Your task to perform on an android device: Clear all items from cart on ebay. Search for jbl flip 4 on ebay, select the first entry, and add it to the cart. Image 0: 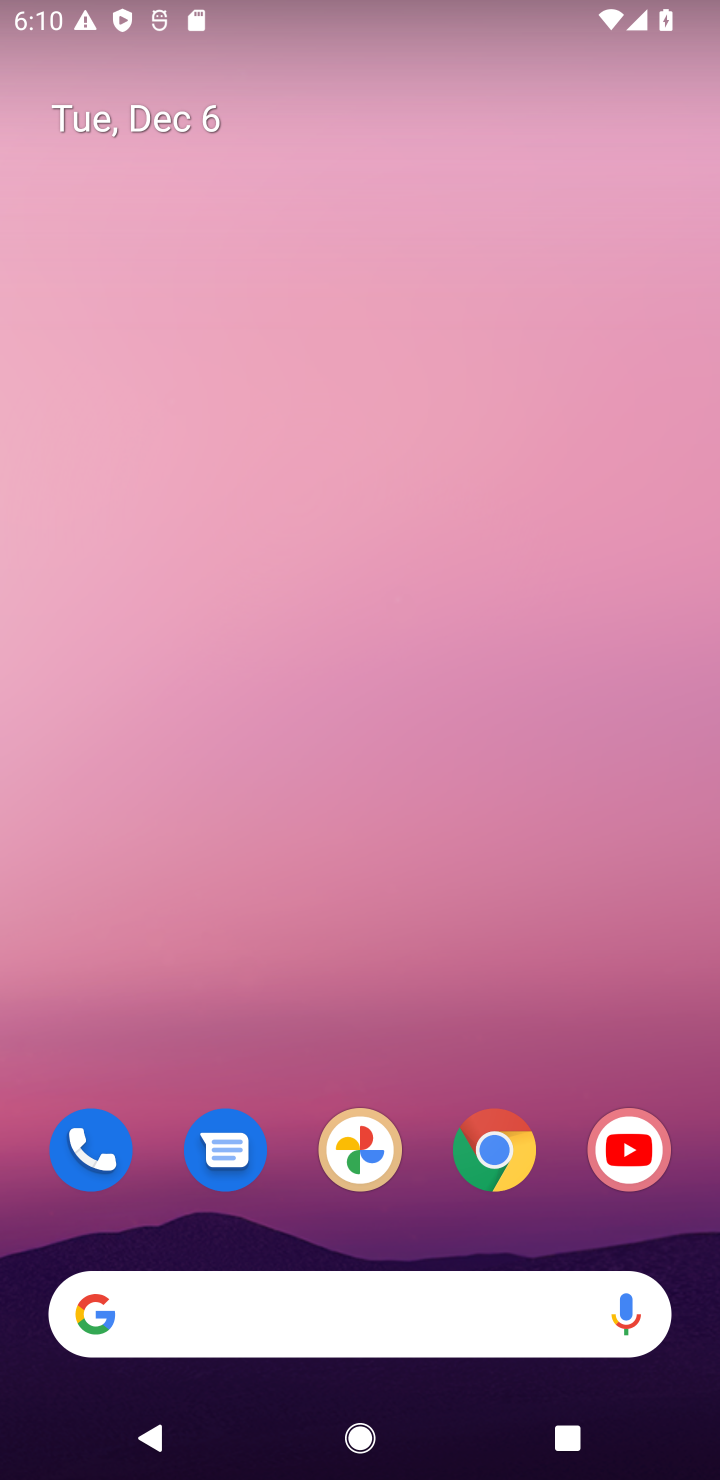
Step 0: click (492, 1160)
Your task to perform on an android device: Clear all items from cart on ebay. Search for jbl flip 4 on ebay, select the first entry, and add it to the cart. Image 1: 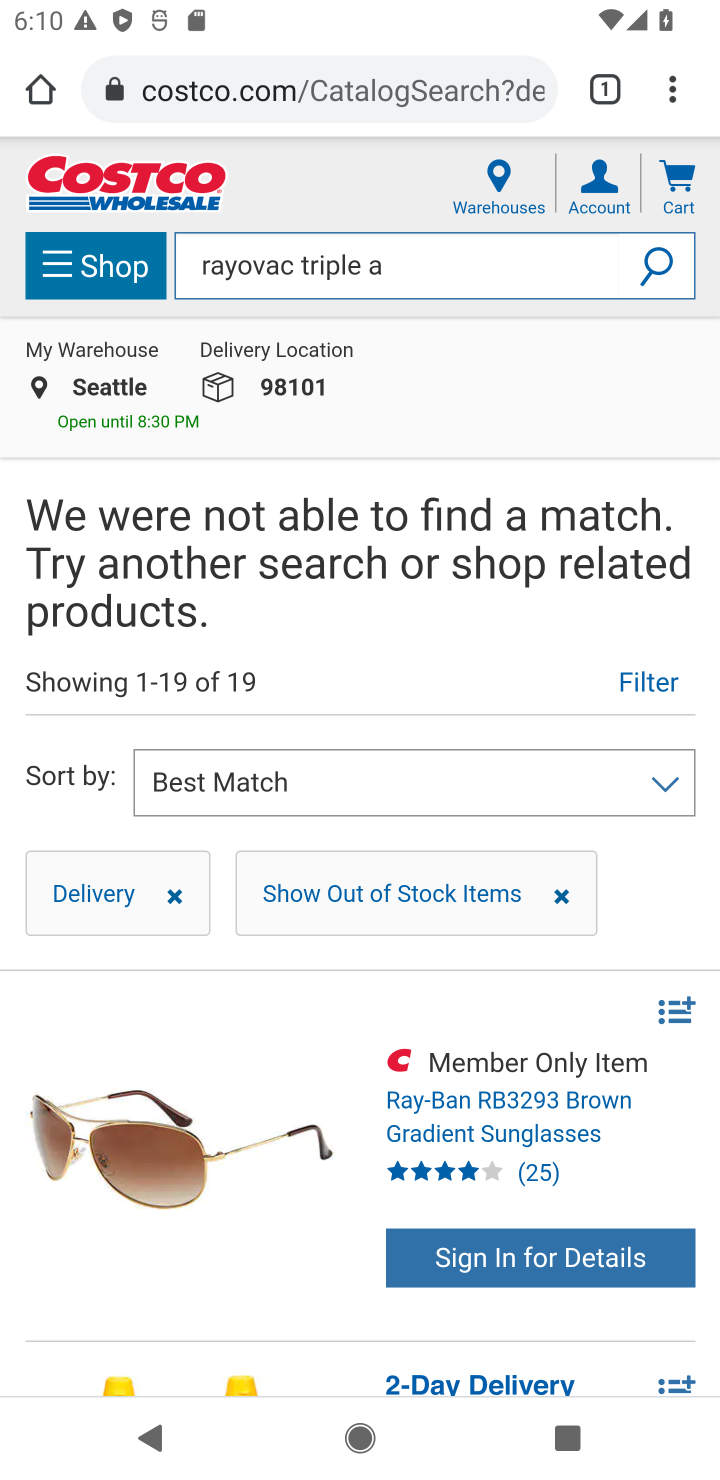
Step 1: click (360, 82)
Your task to perform on an android device: Clear all items from cart on ebay. Search for jbl flip 4 on ebay, select the first entry, and add it to the cart. Image 2: 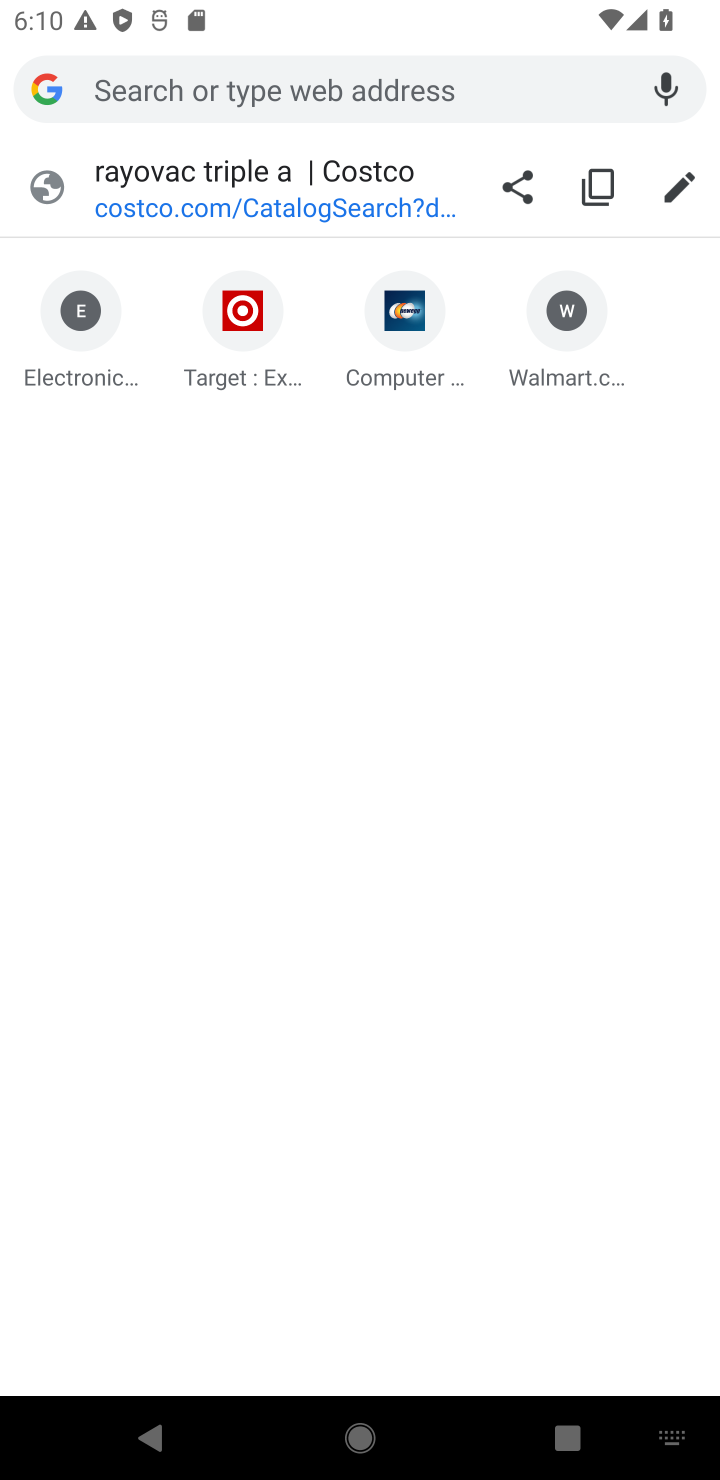
Step 2: type "ebay.com"
Your task to perform on an android device: Clear all items from cart on ebay. Search for jbl flip 4 on ebay, select the first entry, and add it to the cart. Image 3: 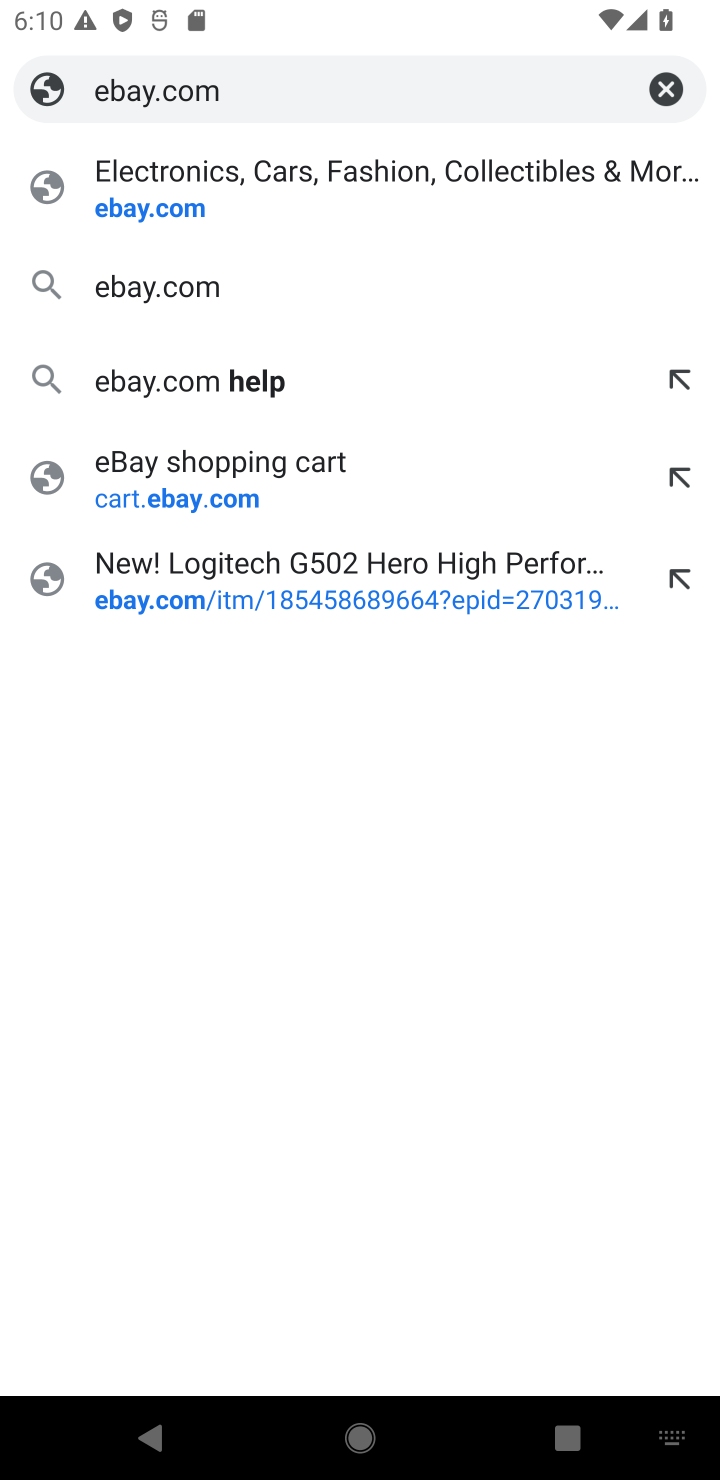
Step 3: click (137, 223)
Your task to perform on an android device: Clear all items from cart on ebay. Search for jbl flip 4 on ebay, select the first entry, and add it to the cart. Image 4: 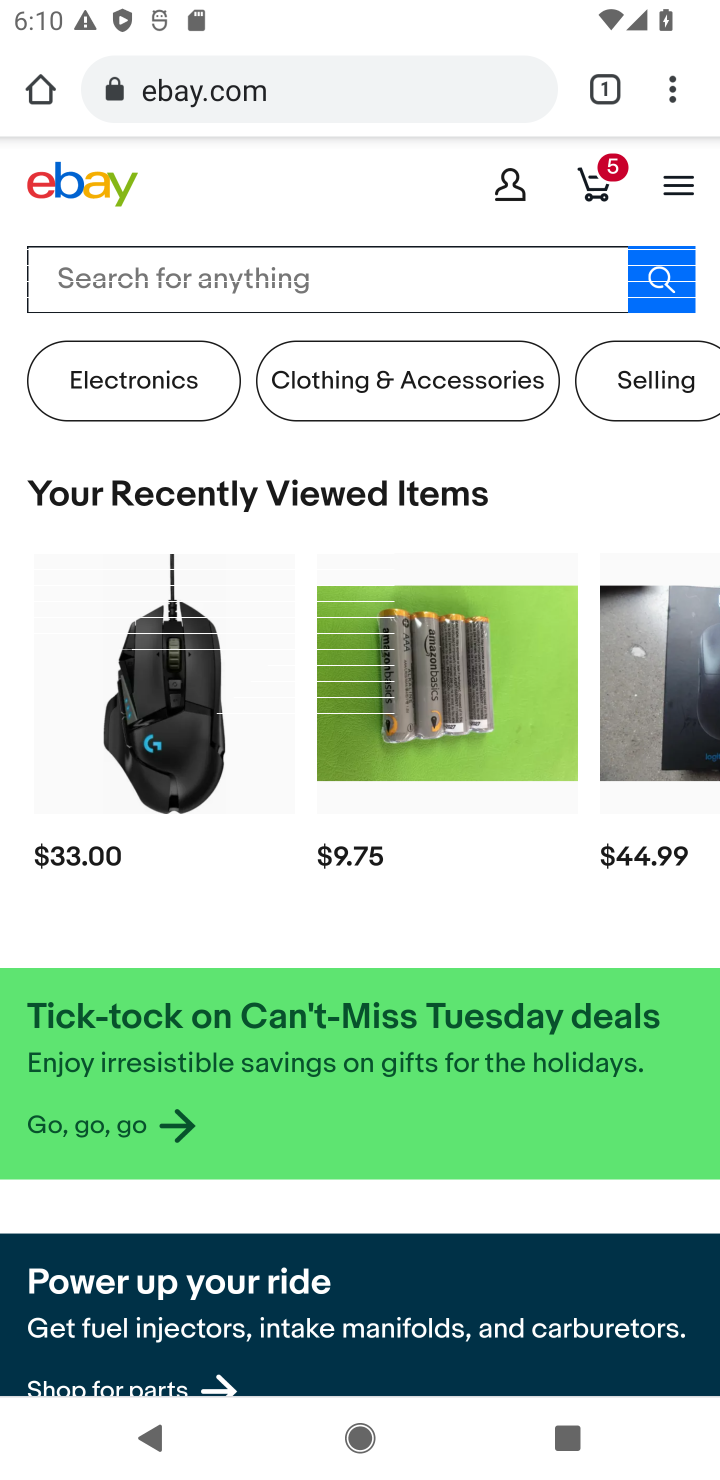
Step 4: click (611, 178)
Your task to perform on an android device: Clear all items from cart on ebay. Search for jbl flip 4 on ebay, select the first entry, and add it to the cart. Image 5: 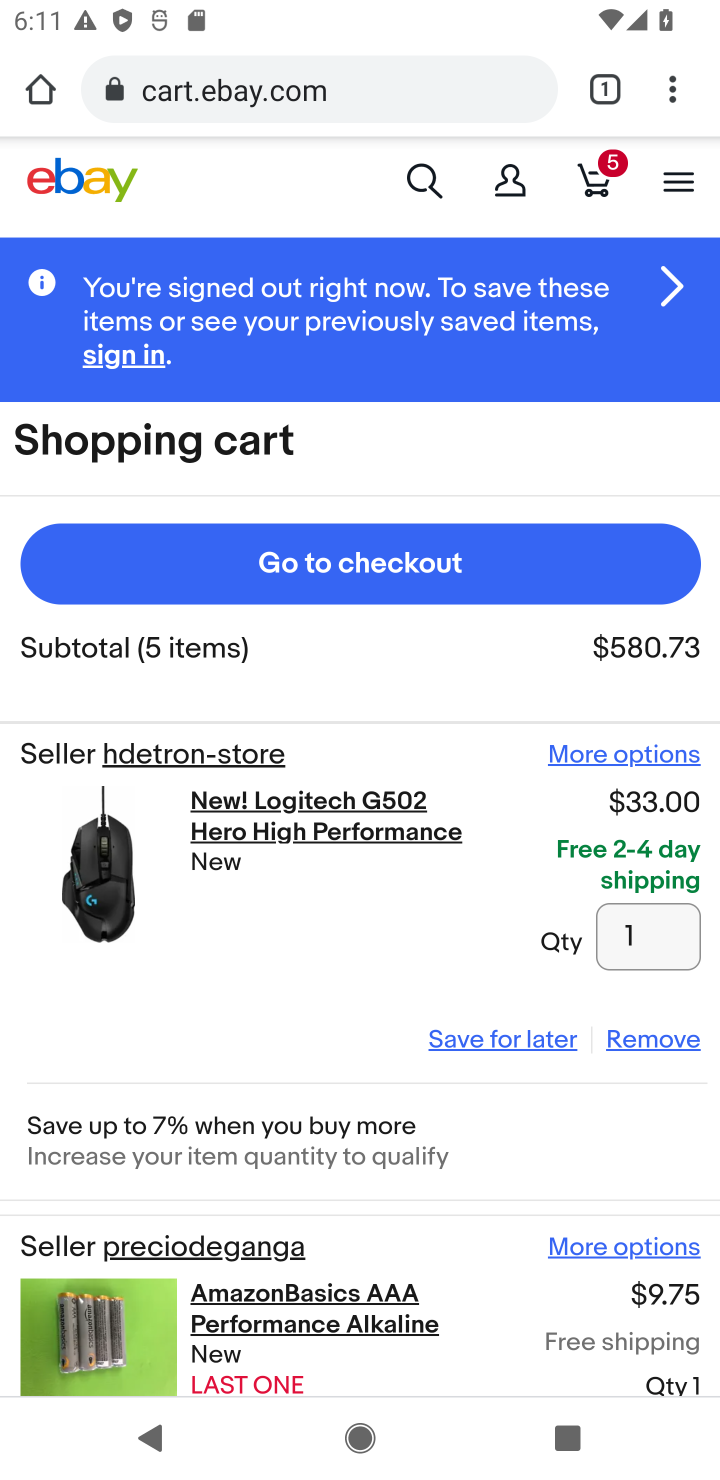
Step 5: click (651, 1038)
Your task to perform on an android device: Clear all items from cart on ebay. Search for jbl flip 4 on ebay, select the first entry, and add it to the cart. Image 6: 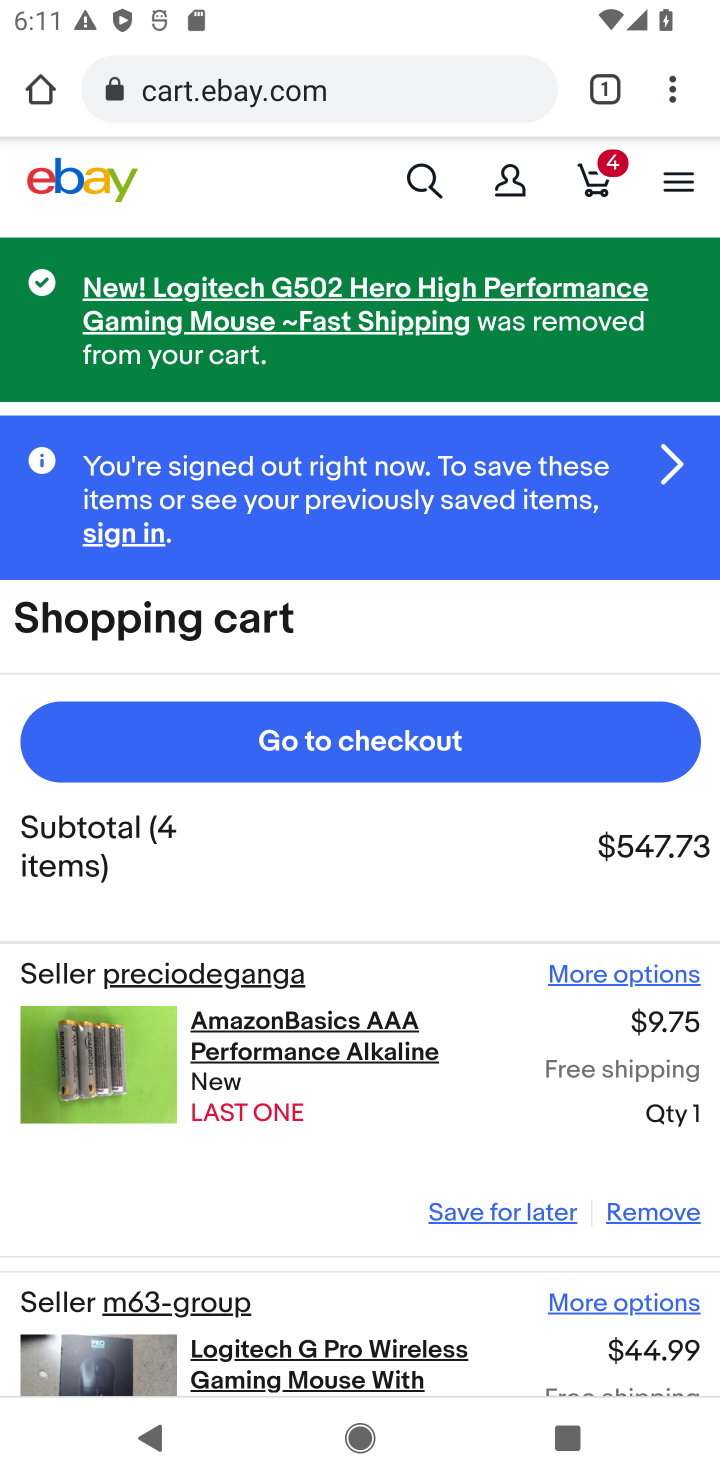
Step 6: click (655, 1208)
Your task to perform on an android device: Clear all items from cart on ebay. Search for jbl flip 4 on ebay, select the first entry, and add it to the cart. Image 7: 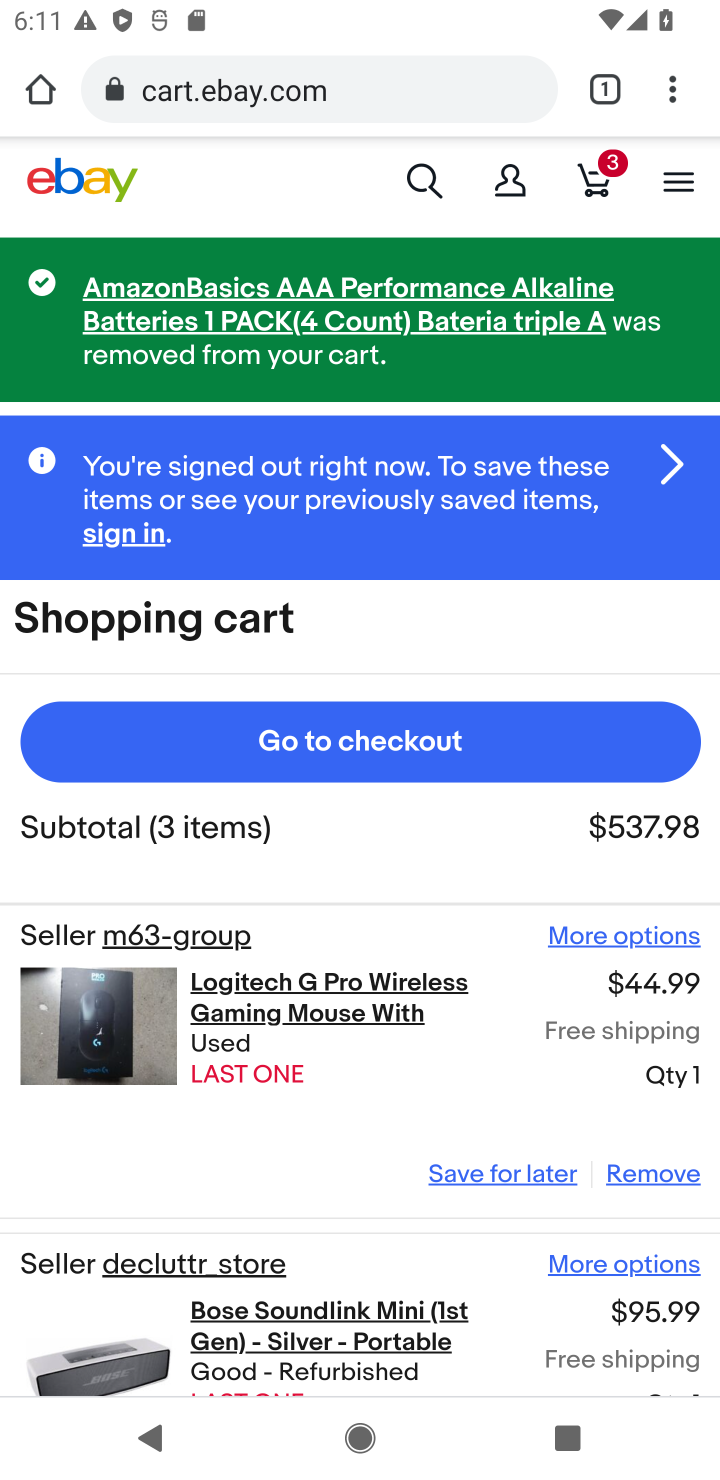
Step 7: click (655, 1175)
Your task to perform on an android device: Clear all items from cart on ebay. Search for jbl flip 4 on ebay, select the first entry, and add it to the cart. Image 8: 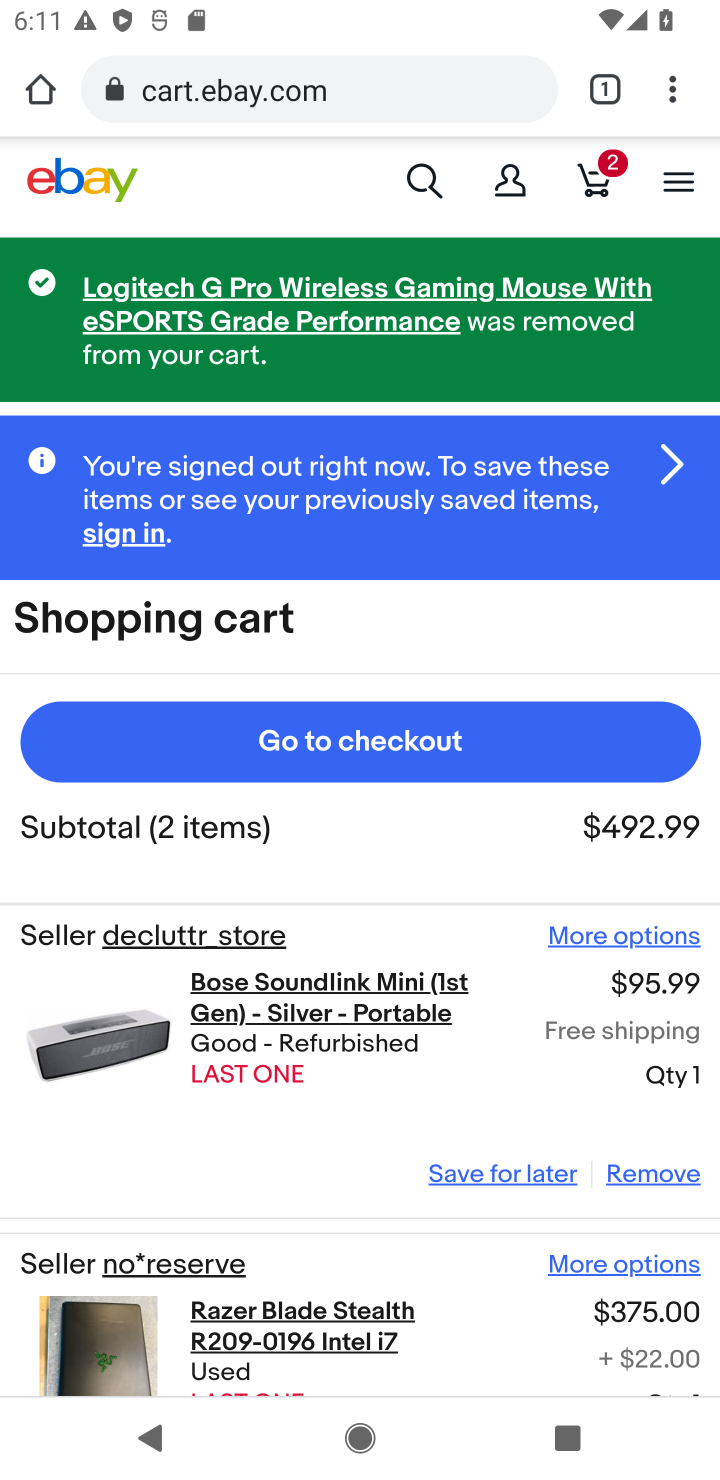
Step 8: click (655, 1175)
Your task to perform on an android device: Clear all items from cart on ebay. Search for jbl flip 4 on ebay, select the first entry, and add it to the cart. Image 9: 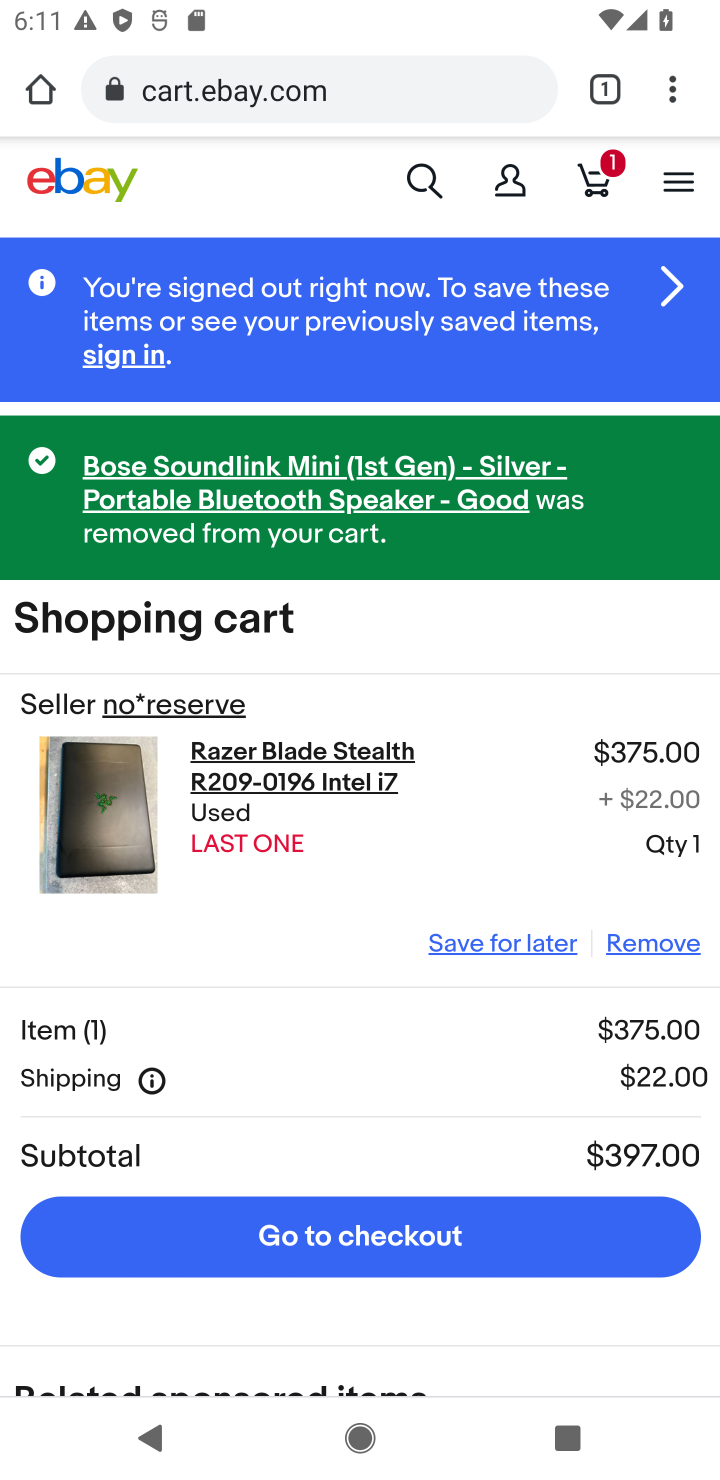
Step 9: click (661, 946)
Your task to perform on an android device: Clear all items from cart on ebay. Search for jbl flip 4 on ebay, select the first entry, and add it to the cart. Image 10: 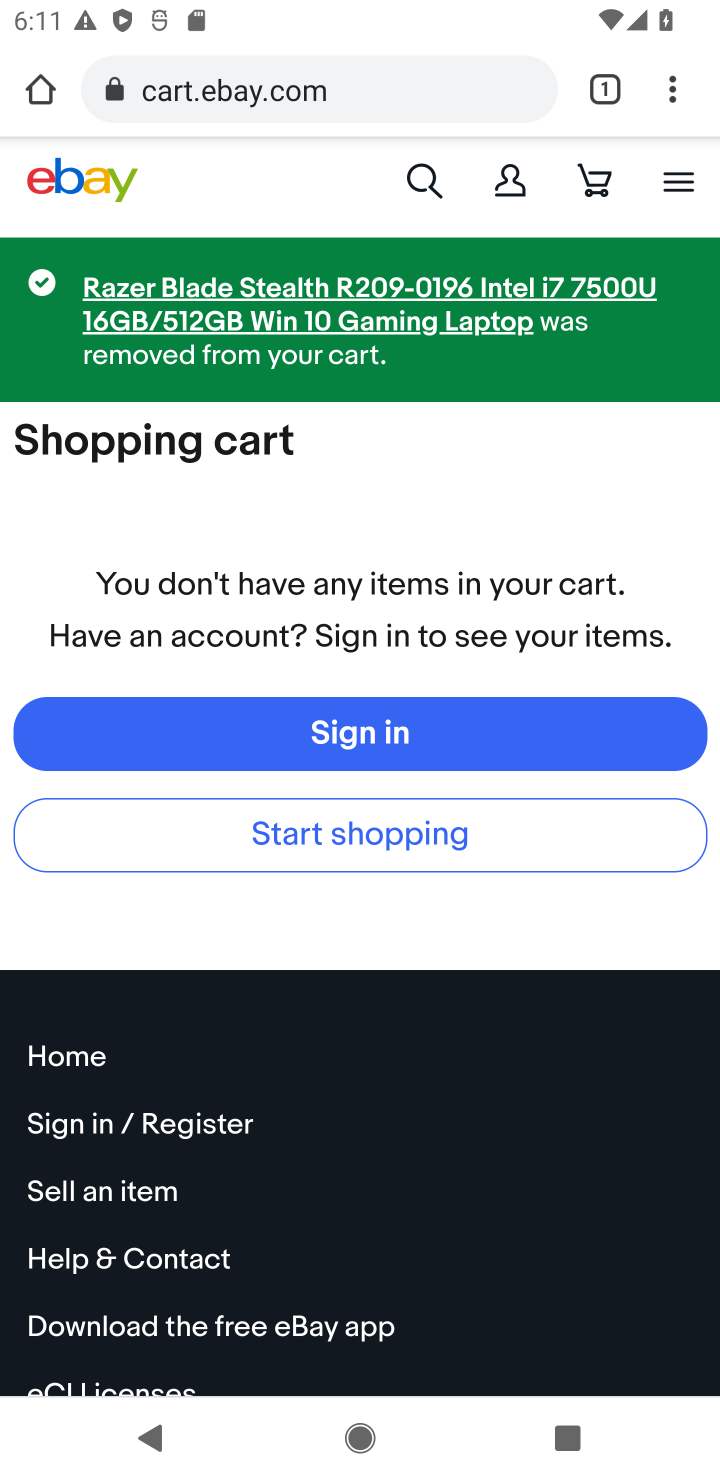
Step 10: click (418, 186)
Your task to perform on an android device: Clear all items from cart on ebay. Search for jbl flip 4 on ebay, select the first entry, and add it to the cart. Image 11: 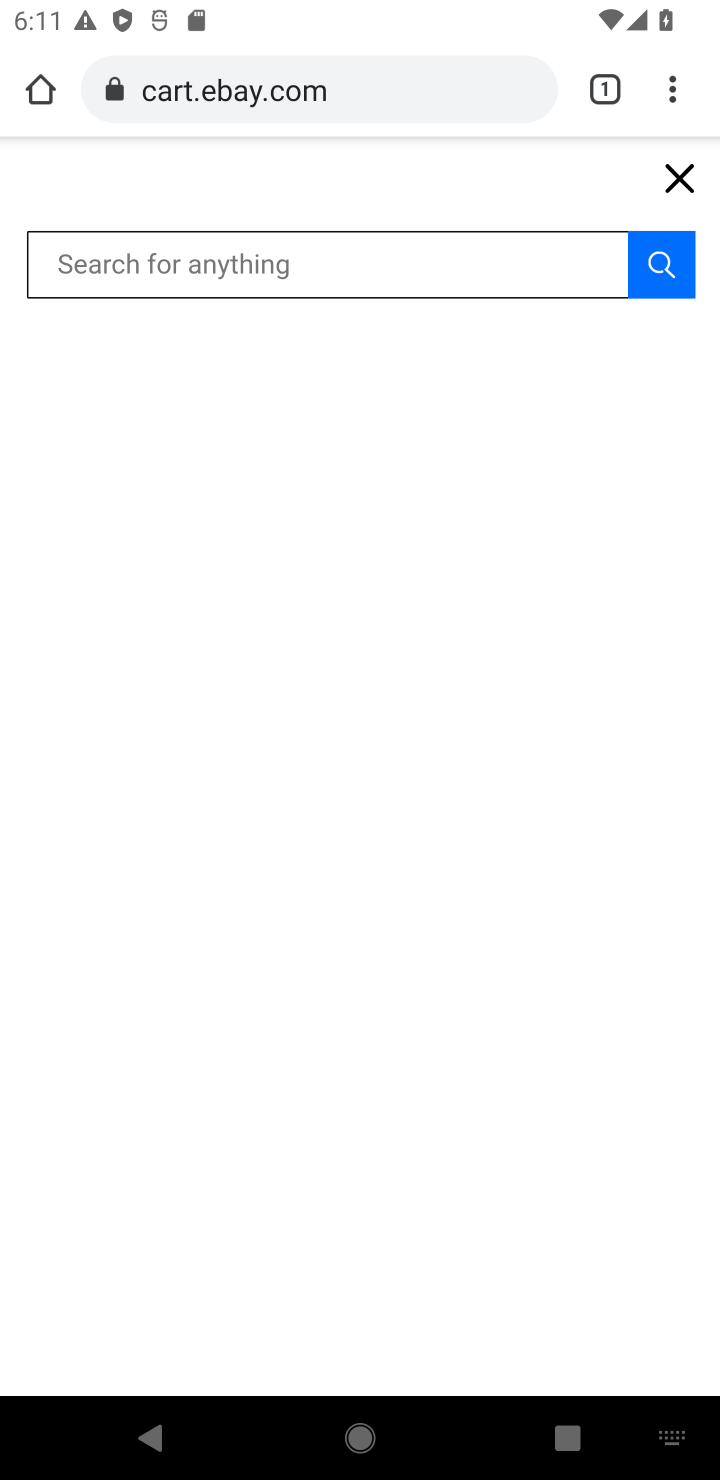
Step 11: type "jbl flip 4 "
Your task to perform on an android device: Clear all items from cart on ebay. Search for jbl flip 4 on ebay, select the first entry, and add it to the cart. Image 12: 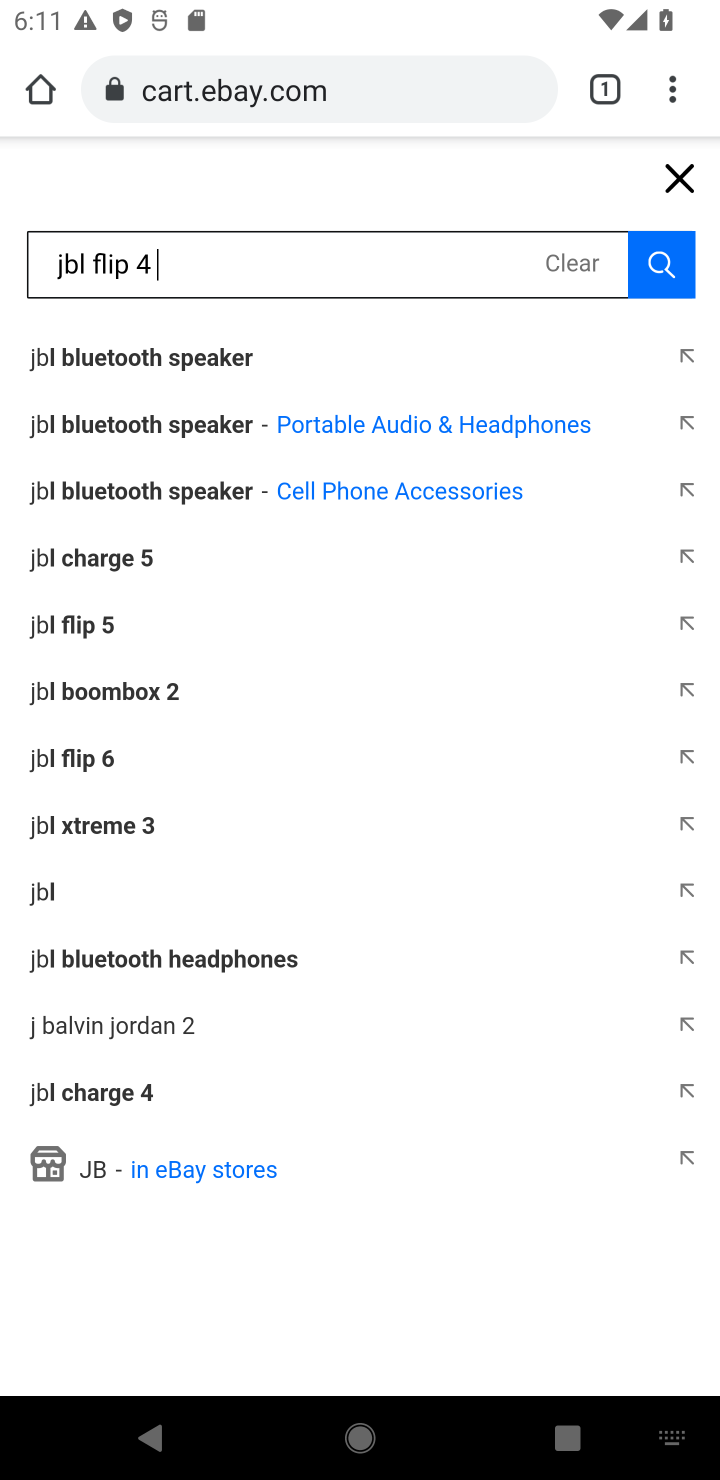
Step 12: click (643, 261)
Your task to perform on an android device: Clear all items from cart on ebay. Search for jbl flip 4 on ebay, select the first entry, and add it to the cart. Image 13: 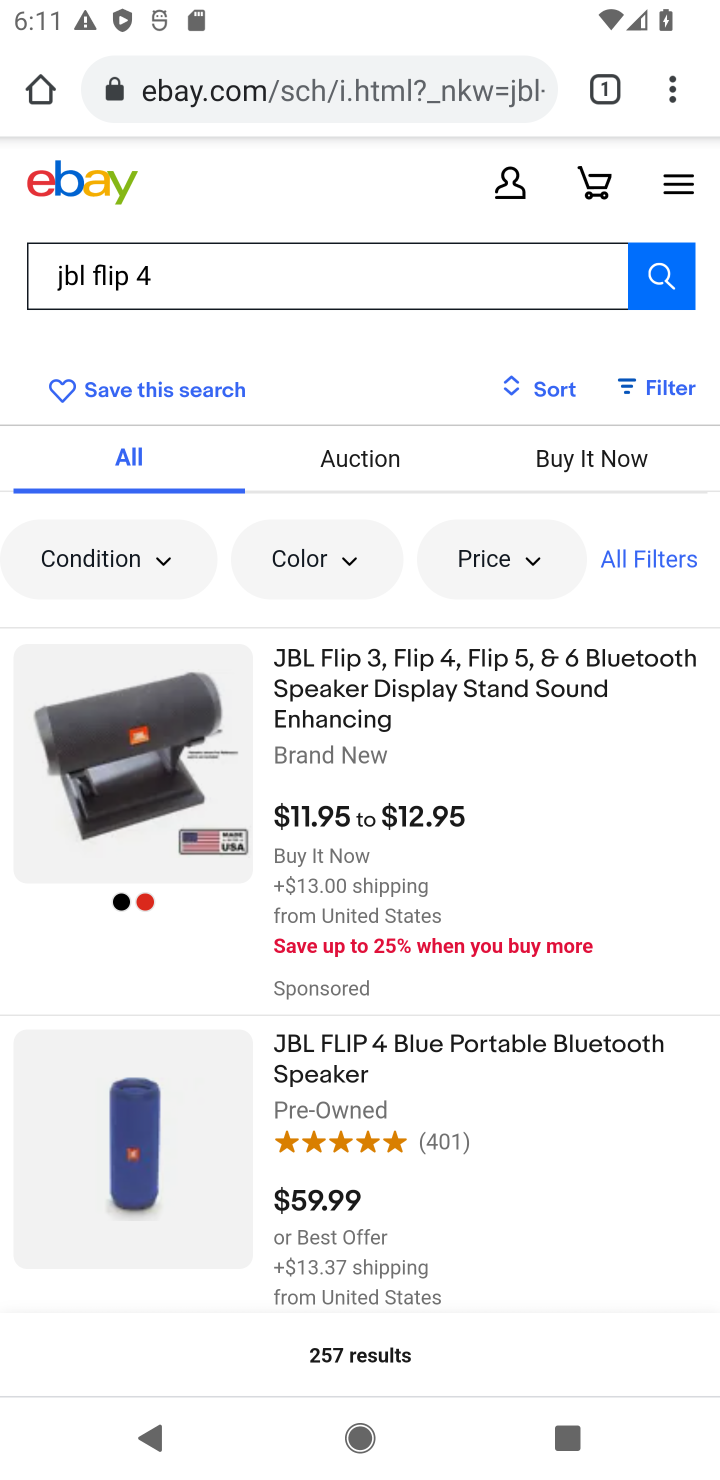
Step 13: click (352, 698)
Your task to perform on an android device: Clear all items from cart on ebay. Search for jbl flip 4 on ebay, select the first entry, and add it to the cart. Image 14: 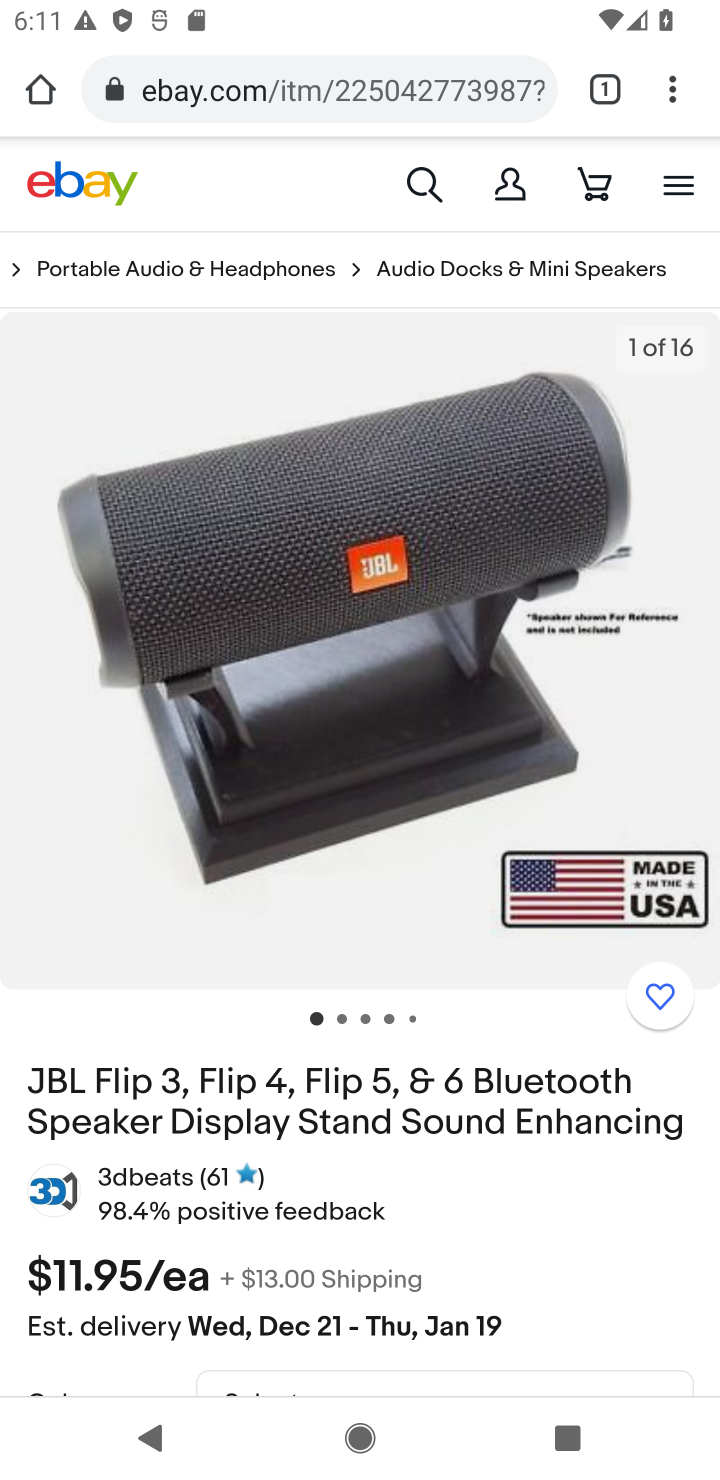
Step 14: drag from (336, 1217) to (264, 634)
Your task to perform on an android device: Clear all items from cart on ebay. Search for jbl flip 4 on ebay, select the first entry, and add it to the cart. Image 15: 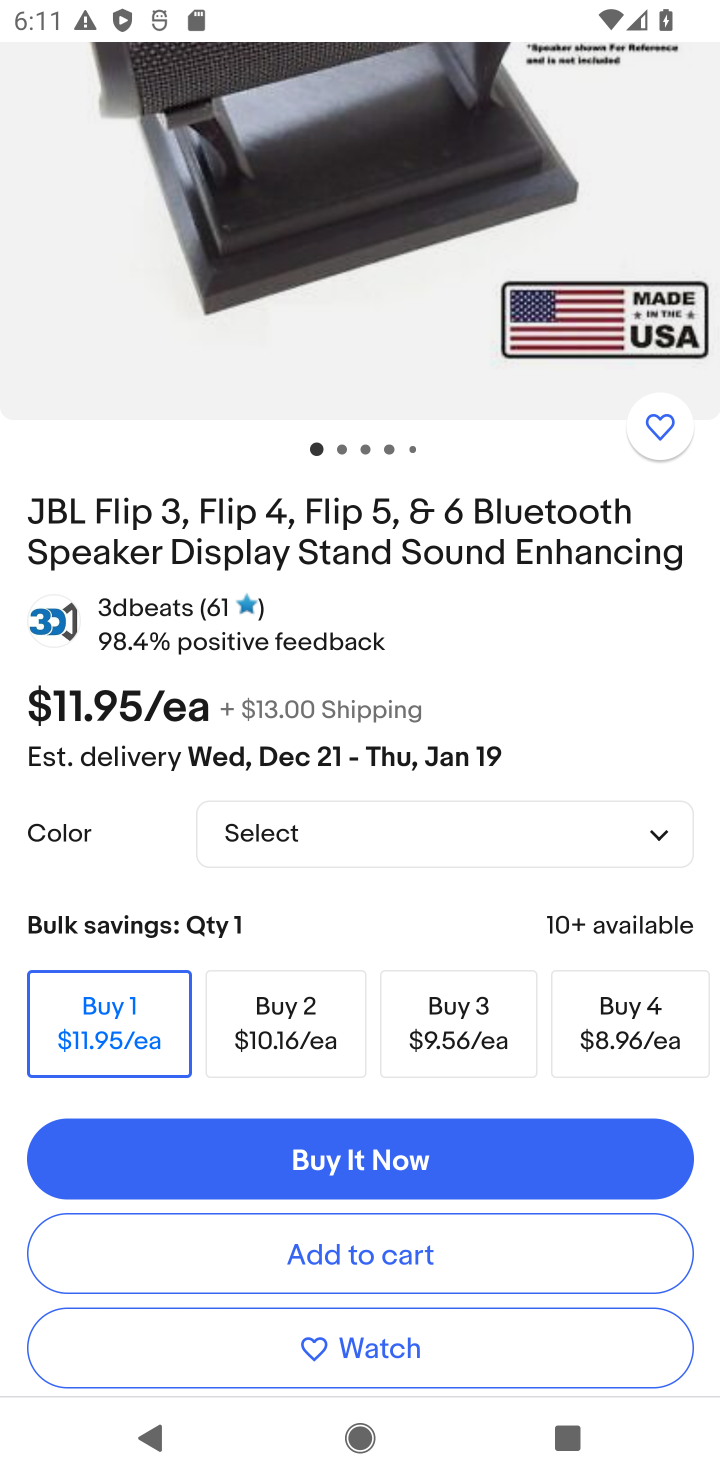
Step 15: click (322, 1249)
Your task to perform on an android device: Clear all items from cart on ebay. Search for jbl flip 4 on ebay, select the first entry, and add it to the cart. Image 16: 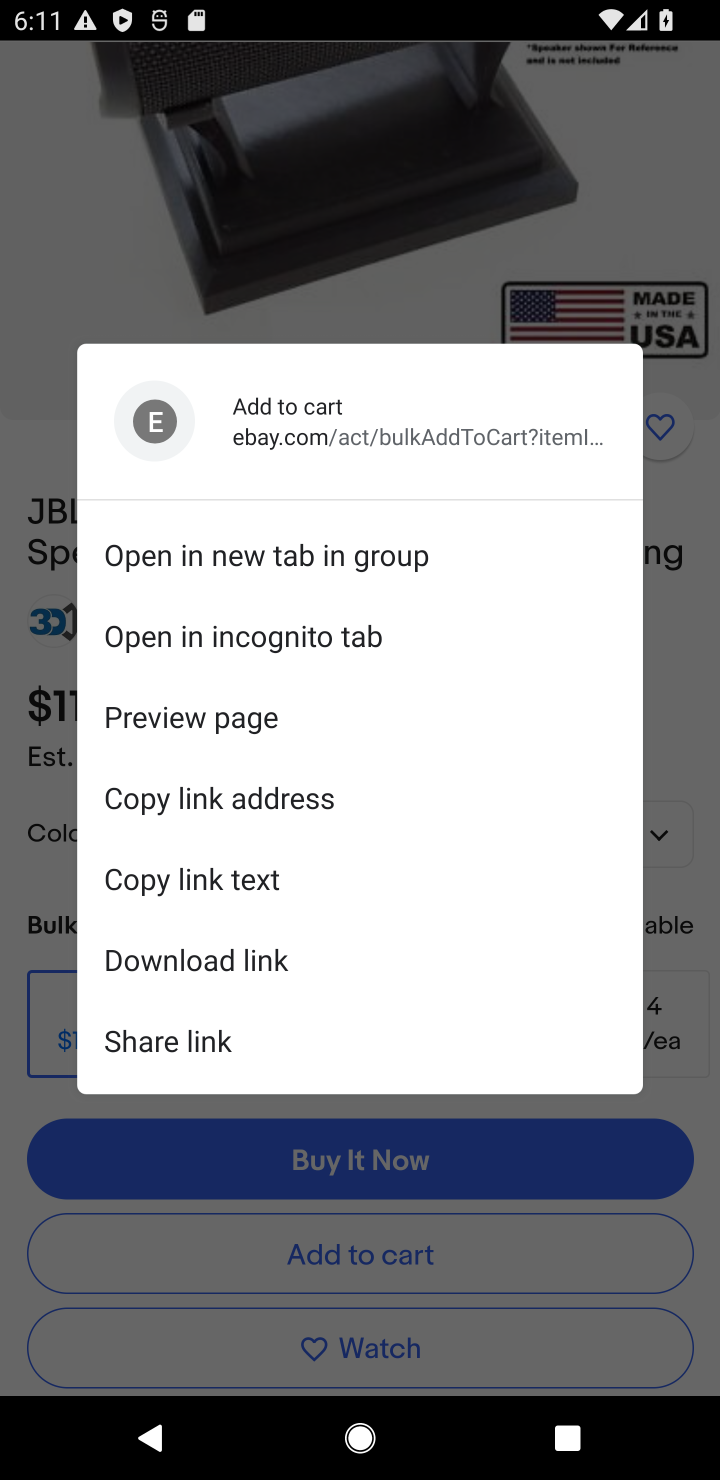
Step 16: click (322, 1249)
Your task to perform on an android device: Clear all items from cart on ebay. Search for jbl flip 4 on ebay, select the first entry, and add it to the cart. Image 17: 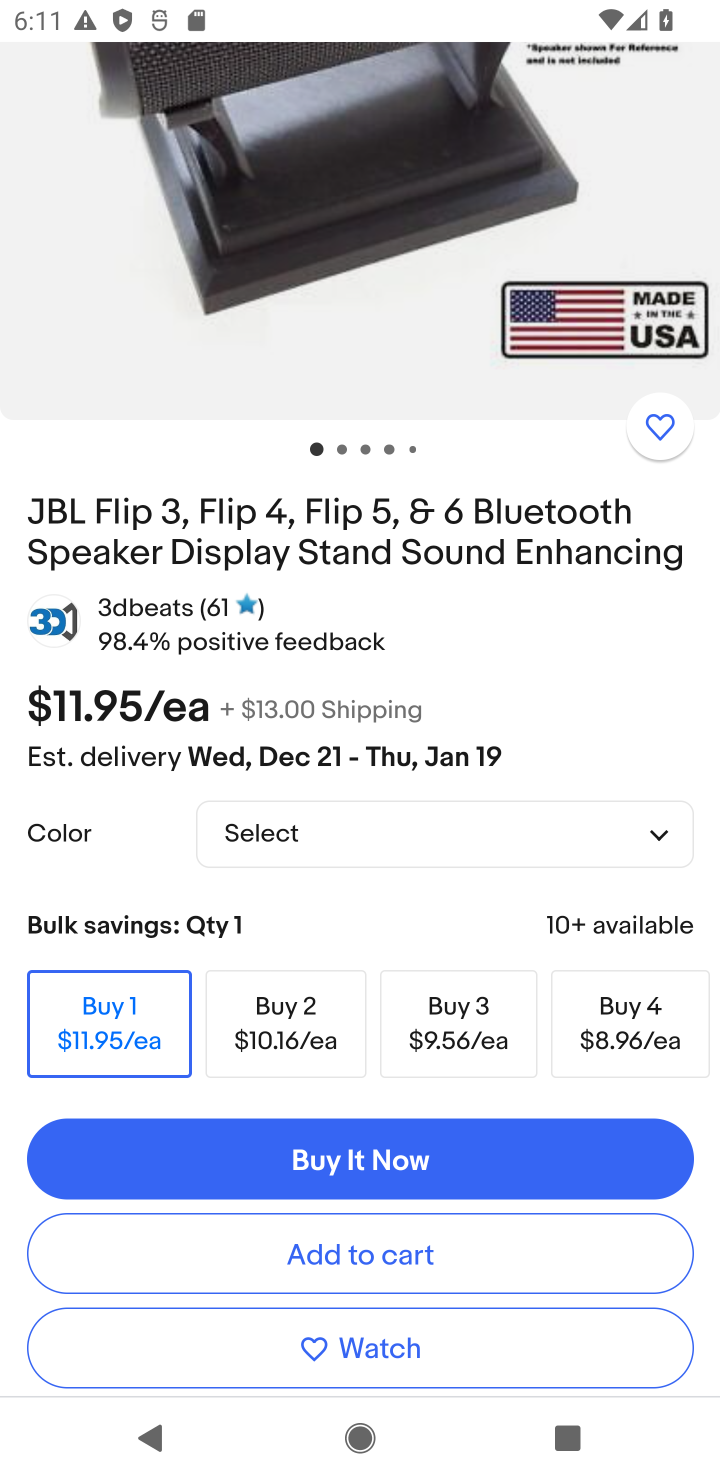
Step 17: click (322, 1249)
Your task to perform on an android device: Clear all items from cart on ebay. Search for jbl flip 4 on ebay, select the first entry, and add it to the cart. Image 18: 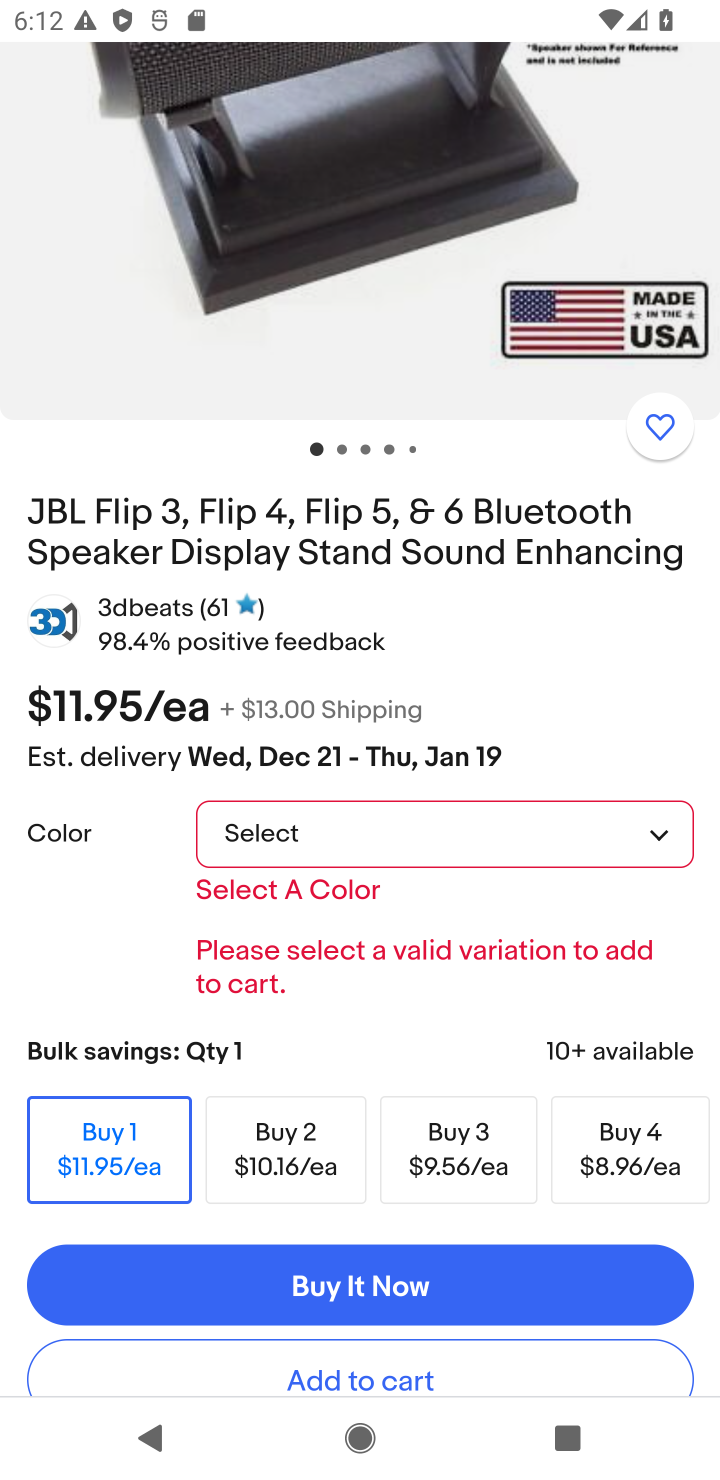
Step 18: click (667, 838)
Your task to perform on an android device: Clear all items from cart on ebay. Search for jbl flip 4 on ebay, select the first entry, and add it to the cart. Image 19: 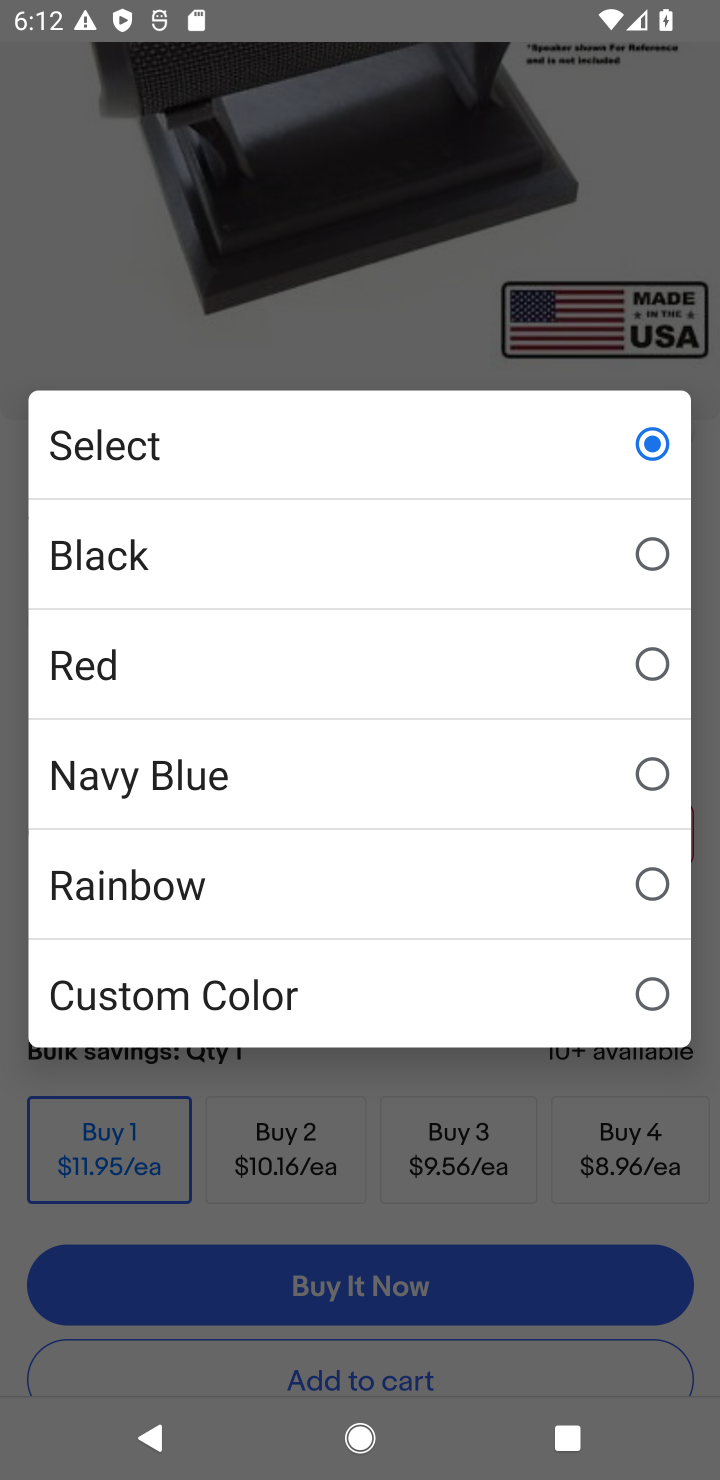
Step 19: click (97, 679)
Your task to perform on an android device: Clear all items from cart on ebay. Search for jbl flip 4 on ebay, select the first entry, and add it to the cart. Image 20: 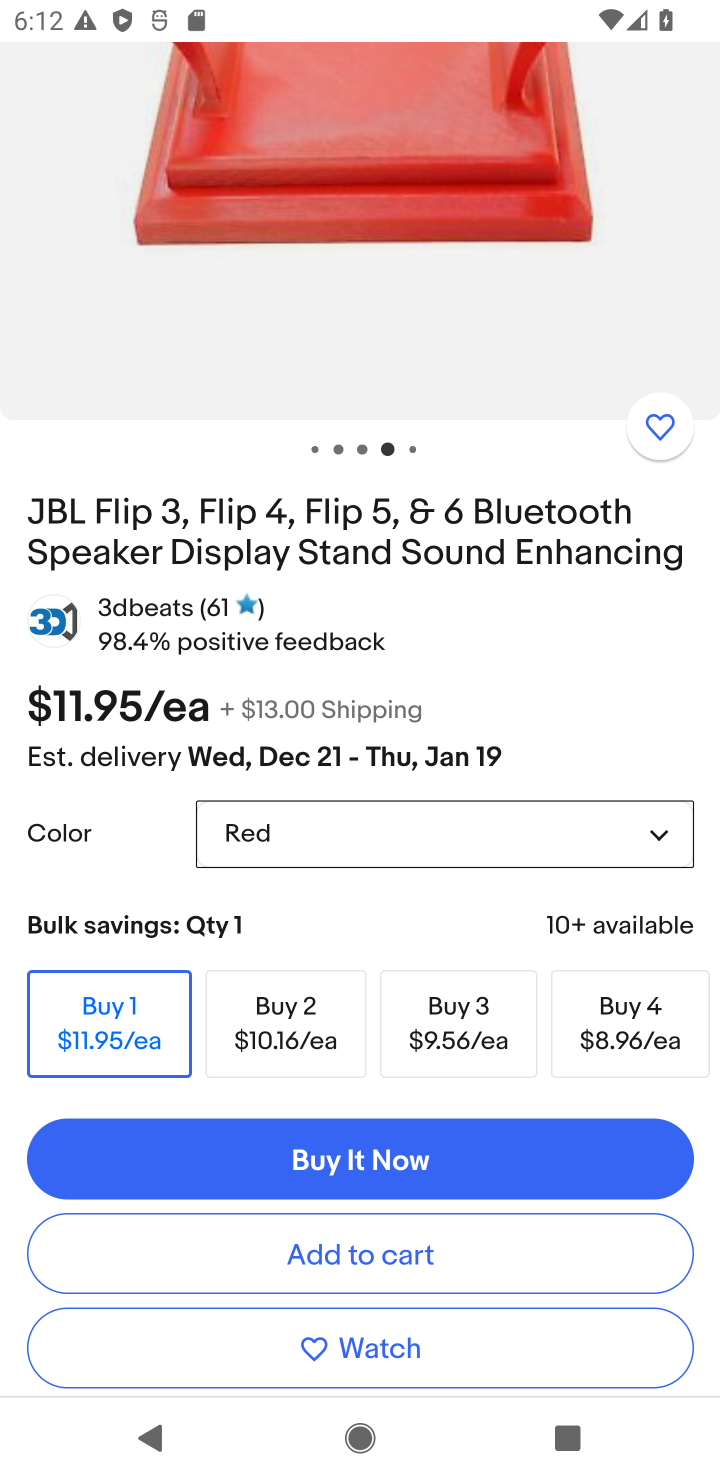
Step 20: click (368, 1260)
Your task to perform on an android device: Clear all items from cart on ebay. Search for jbl flip 4 on ebay, select the first entry, and add it to the cart. Image 21: 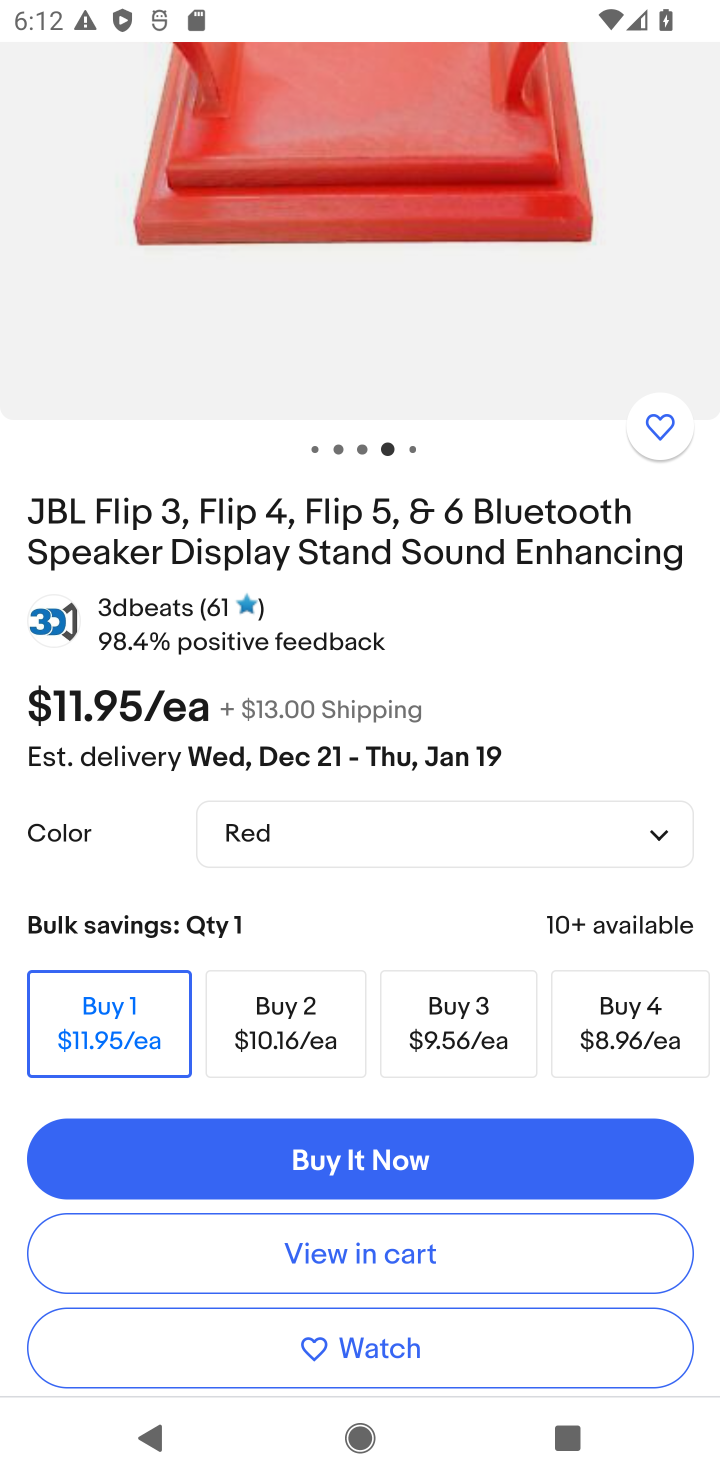
Step 21: task complete